Your task to perform on an android device: delete a single message in the gmail app Image 0: 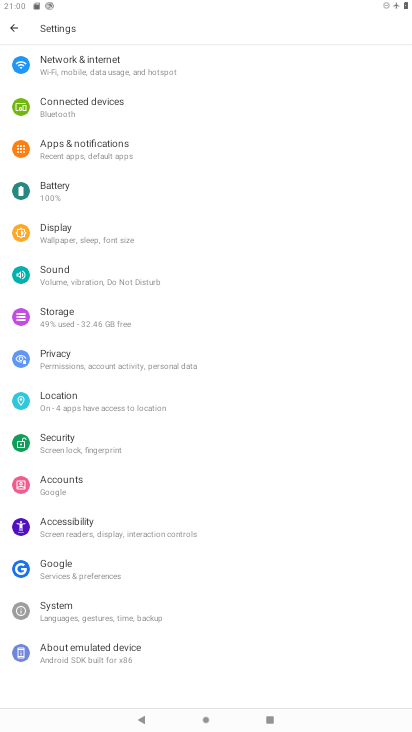
Step 0: press home button
Your task to perform on an android device: delete a single message in the gmail app Image 1: 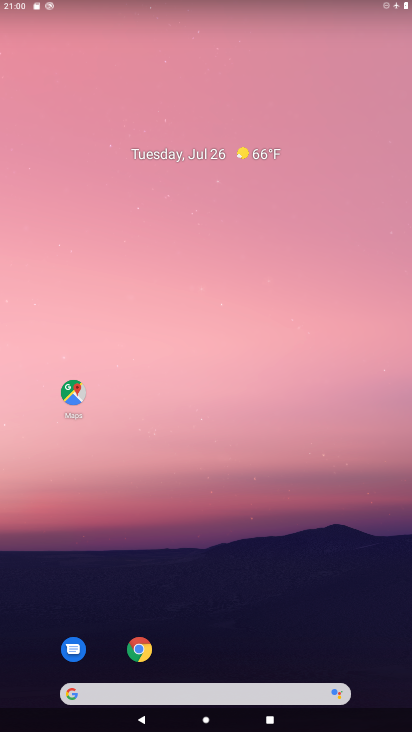
Step 1: drag from (179, 720) to (259, 130)
Your task to perform on an android device: delete a single message in the gmail app Image 2: 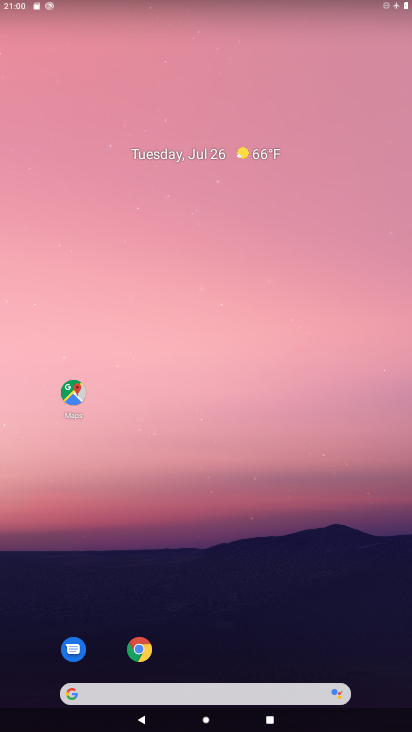
Step 2: drag from (168, 725) to (314, 9)
Your task to perform on an android device: delete a single message in the gmail app Image 3: 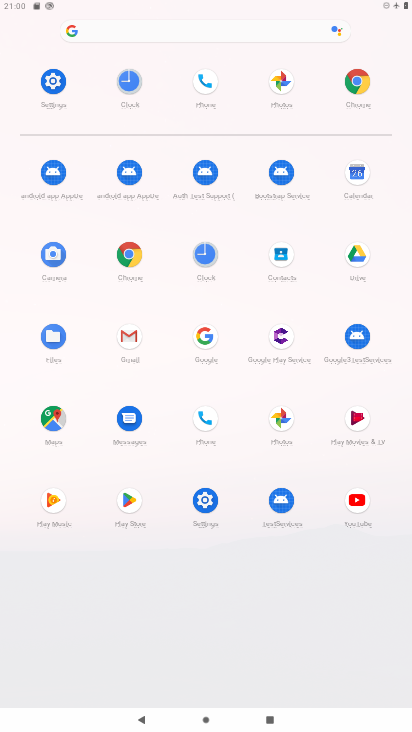
Step 3: click (130, 347)
Your task to perform on an android device: delete a single message in the gmail app Image 4: 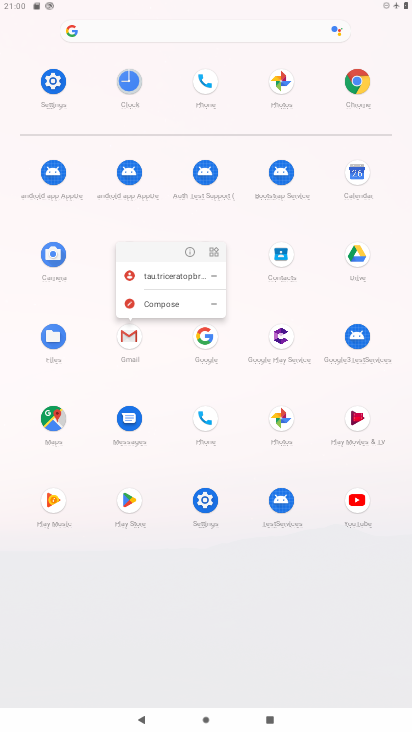
Step 4: click (130, 347)
Your task to perform on an android device: delete a single message in the gmail app Image 5: 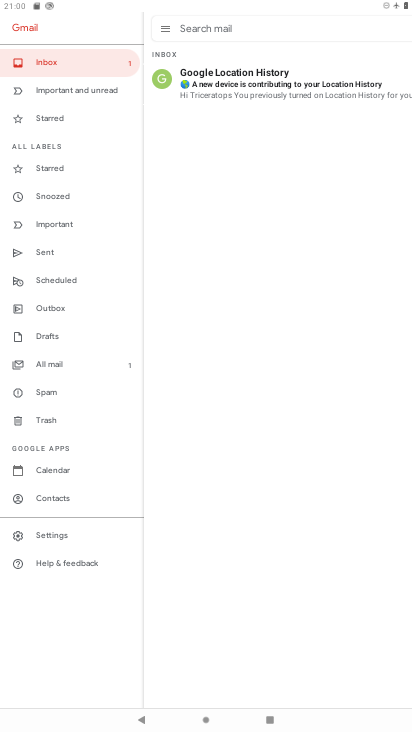
Step 5: click (250, 93)
Your task to perform on an android device: delete a single message in the gmail app Image 6: 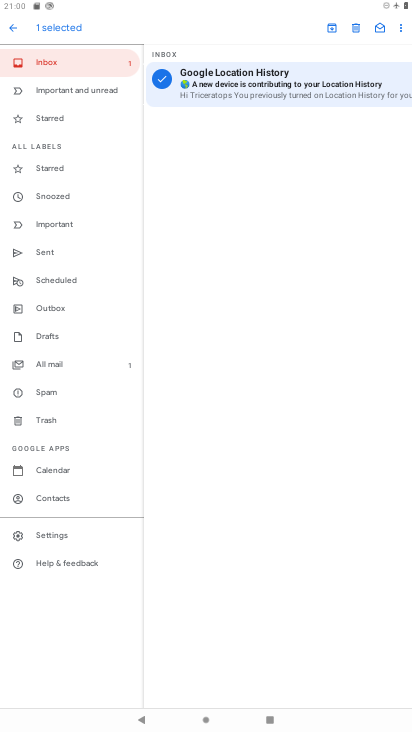
Step 6: click (352, 26)
Your task to perform on an android device: delete a single message in the gmail app Image 7: 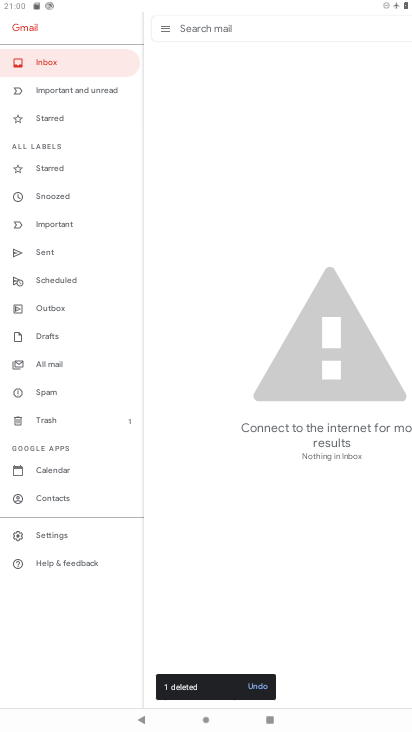
Step 7: task complete